Your task to perform on an android device: Open network settings Image 0: 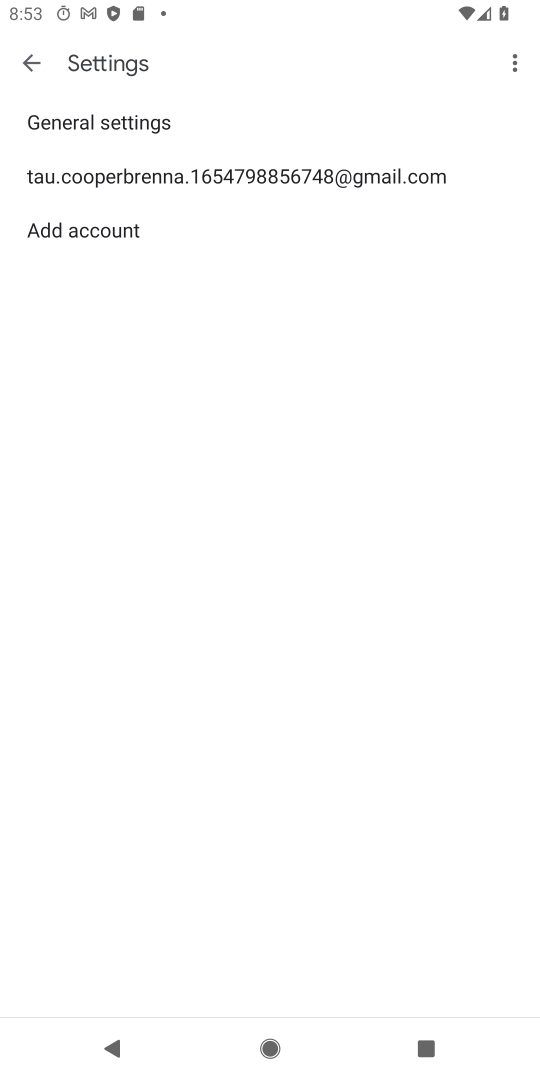
Step 0: press home button
Your task to perform on an android device: Open network settings Image 1: 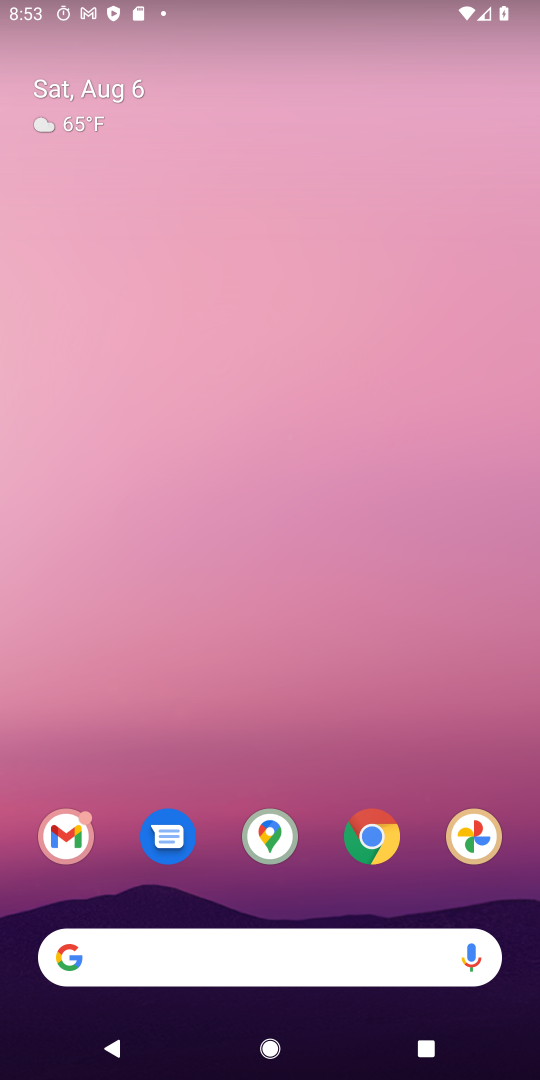
Step 1: drag from (462, 896) to (252, 8)
Your task to perform on an android device: Open network settings Image 2: 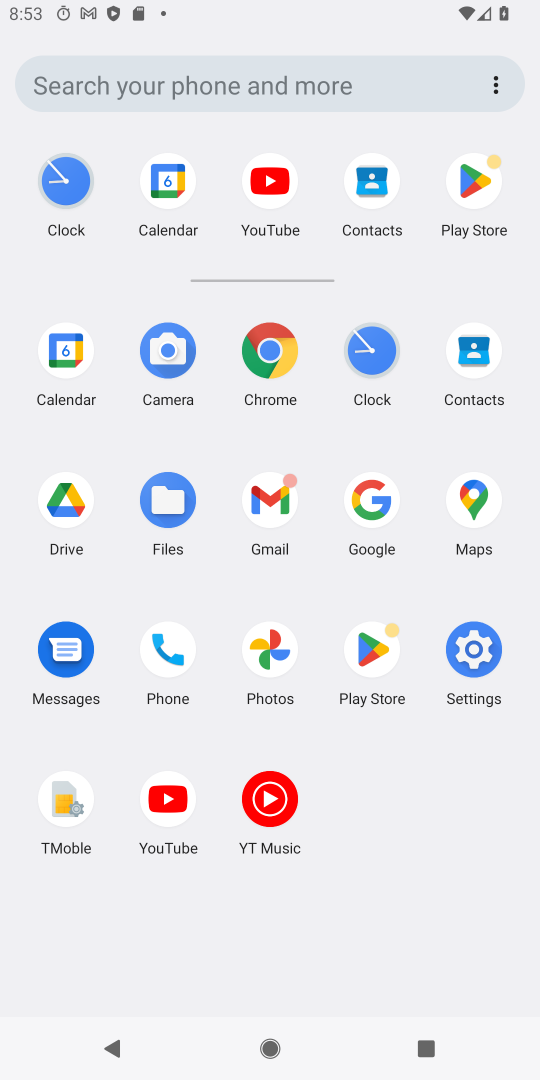
Step 2: click (490, 655)
Your task to perform on an android device: Open network settings Image 3: 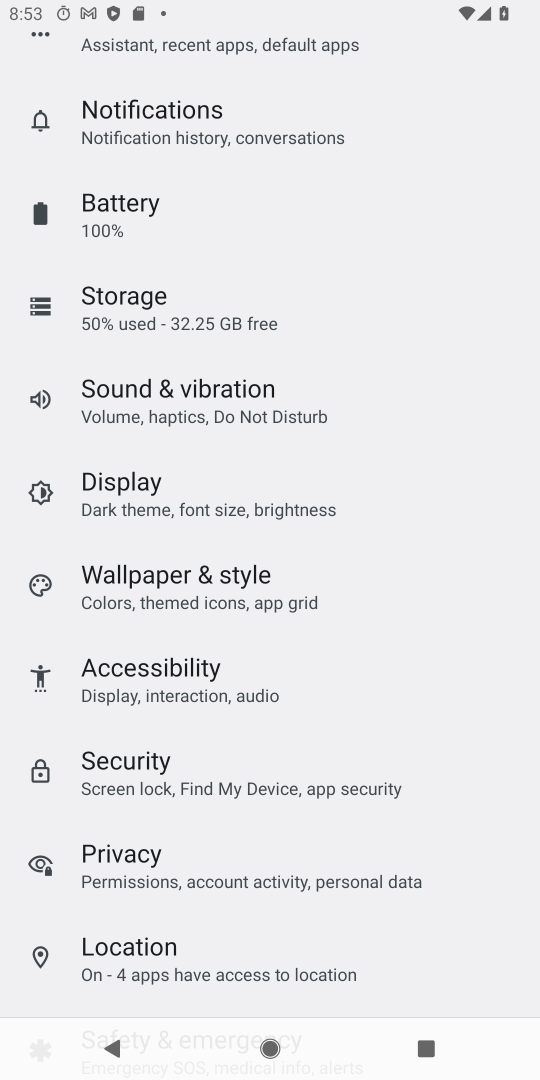
Step 3: drag from (209, 220) to (319, 1017)
Your task to perform on an android device: Open network settings Image 4: 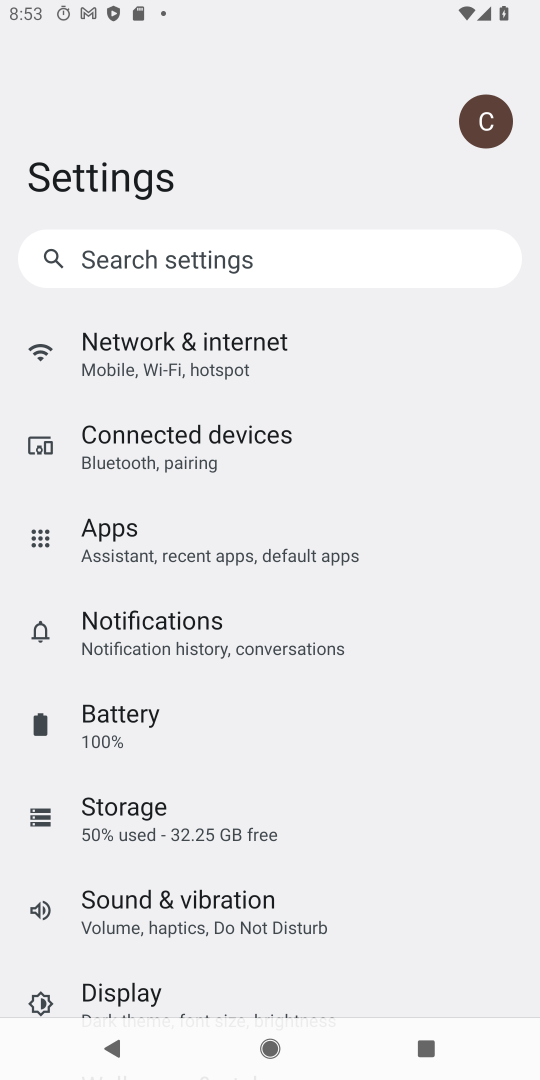
Step 4: click (205, 349)
Your task to perform on an android device: Open network settings Image 5: 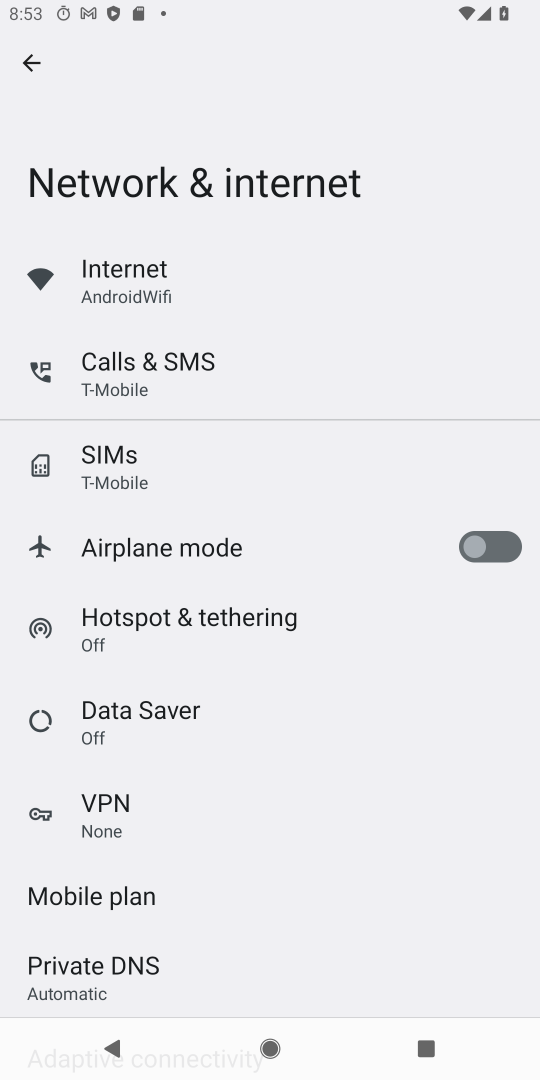
Step 5: task complete